Your task to perform on an android device: Open Google Chrome and open the bookmarks view Image 0: 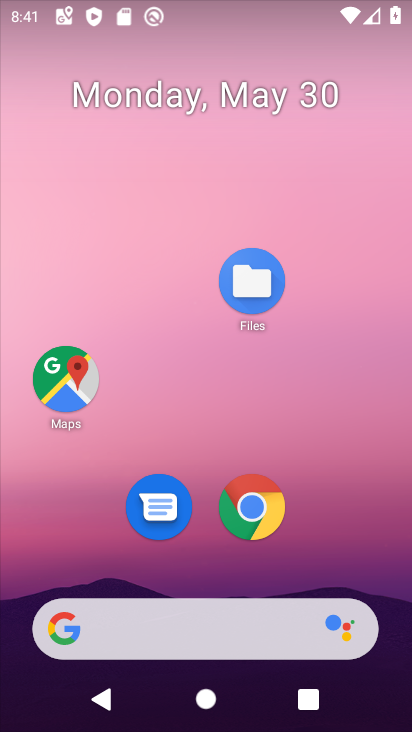
Step 0: click (247, 498)
Your task to perform on an android device: Open Google Chrome and open the bookmarks view Image 1: 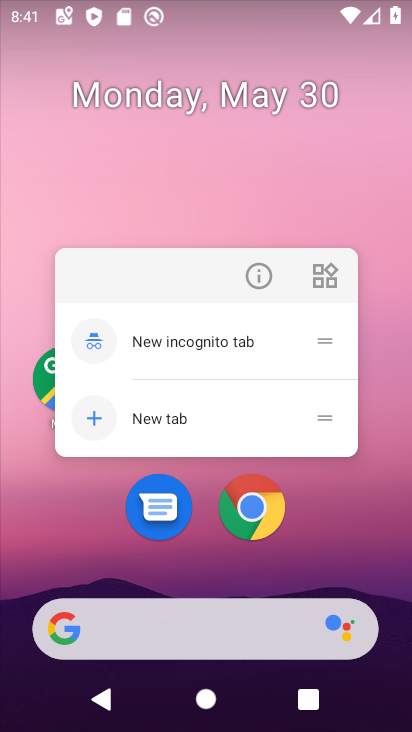
Step 1: click (247, 499)
Your task to perform on an android device: Open Google Chrome and open the bookmarks view Image 2: 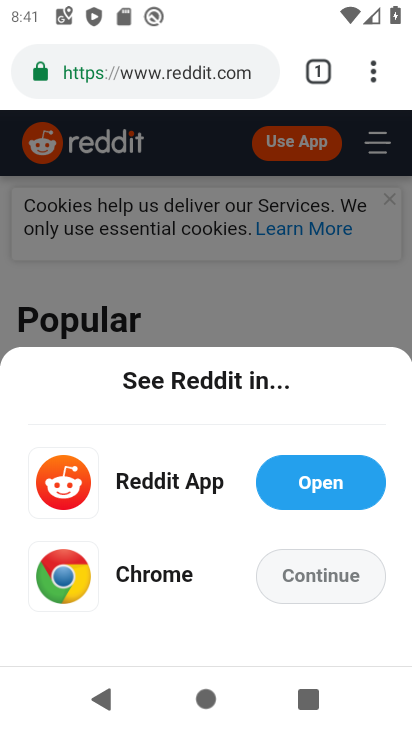
Step 2: click (376, 67)
Your task to perform on an android device: Open Google Chrome and open the bookmarks view Image 3: 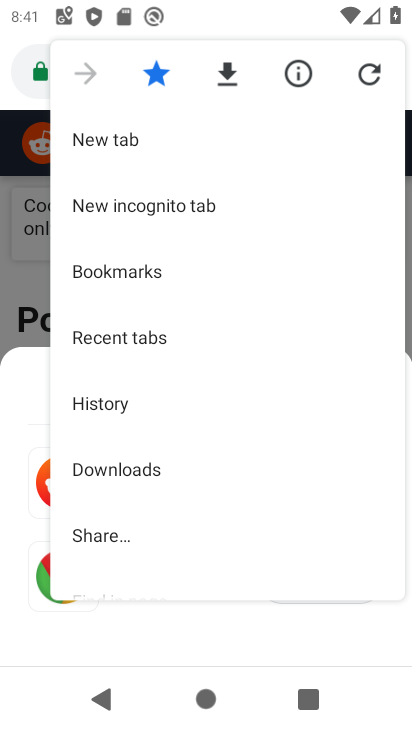
Step 3: click (146, 267)
Your task to perform on an android device: Open Google Chrome and open the bookmarks view Image 4: 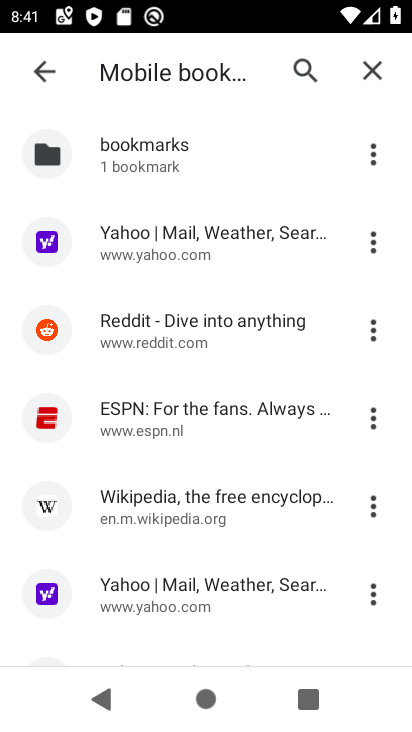
Step 4: task complete